Your task to perform on an android device: see tabs open on other devices in the chrome app Image 0: 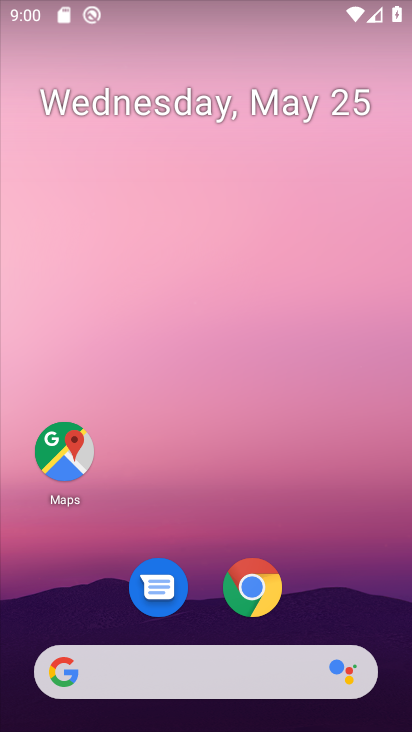
Step 0: click (251, 567)
Your task to perform on an android device: see tabs open on other devices in the chrome app Image 1: 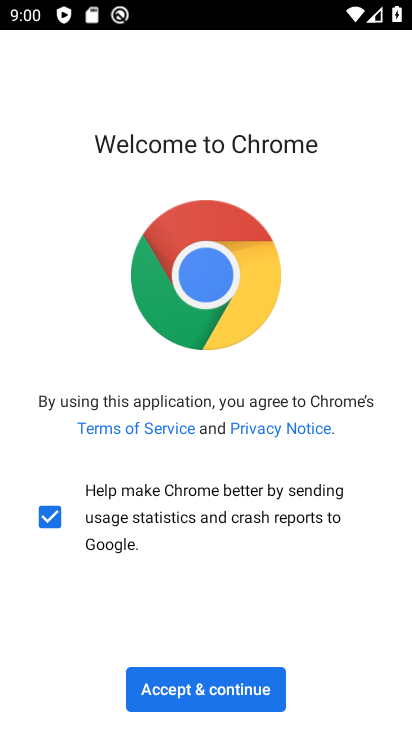
Step 1: click (216, 693)
Your task to perform on an android device: see tabs open on other devices in the chrome app Image 2: 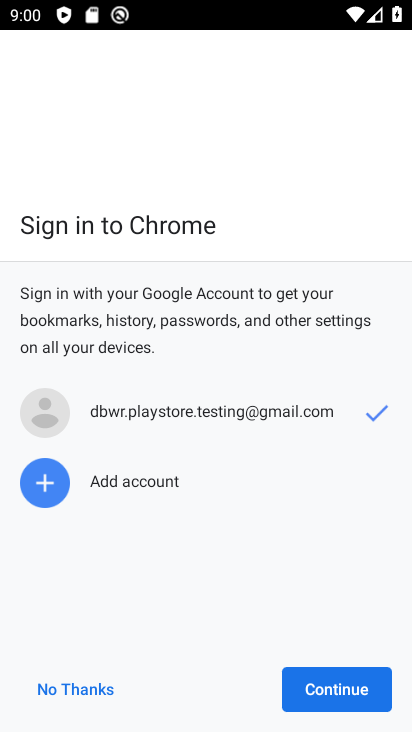
Step 2: click (334, 697)
Your task to perform on an android device: see tabs open on other devices in the chrome app Image 3: 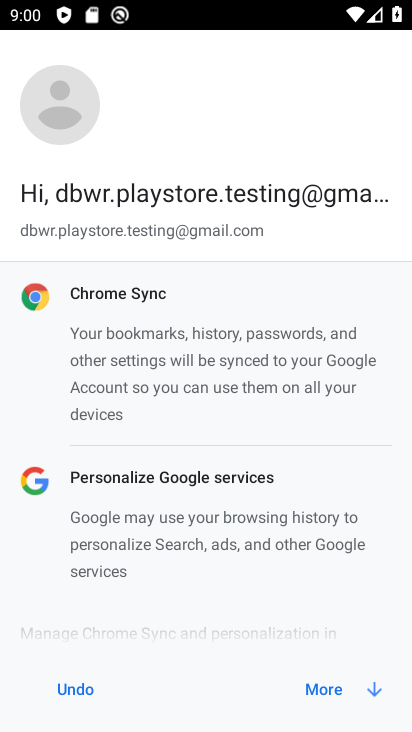
Step 3: click (306, 691)
Your task to perform on an android device: see tabs open on other devices in the chrome app Image 4: 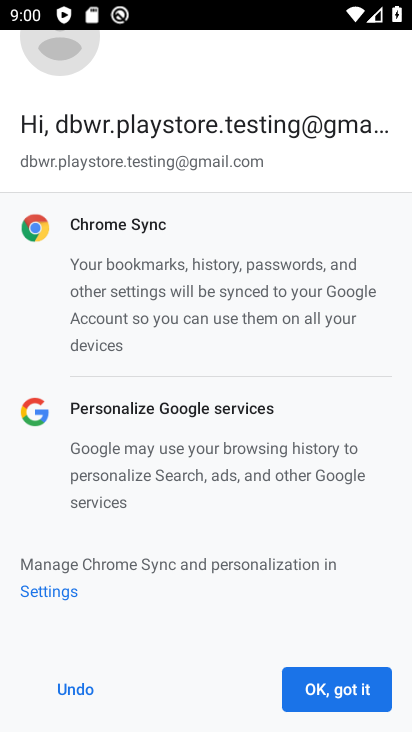
Step 4: click (306, 693)
Your task to perform on an android device: see tabs open on other devices in the chrome app Image 5: 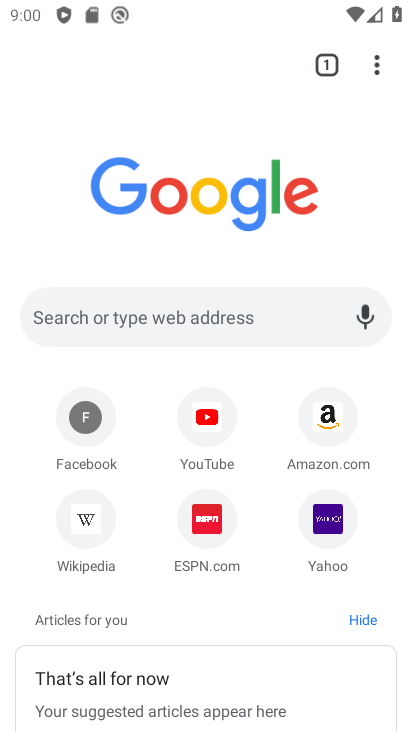
Step 5: click (372, 64)
Your task to perform on an android device: see tabs open on other devices in the chrome app Image 6: 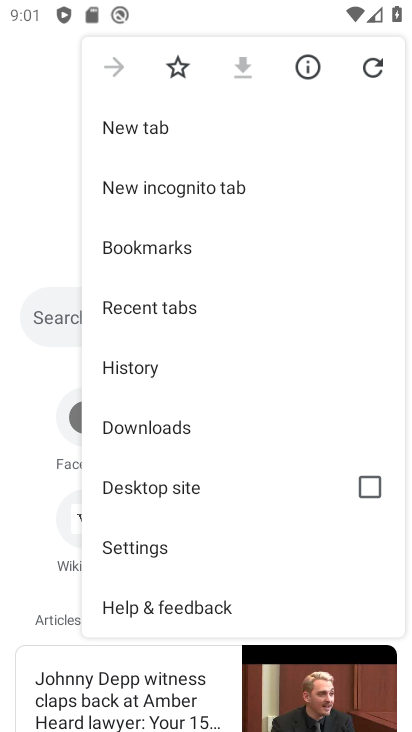
Step 6: click (148, 307)
Your task to perform on an android device: see tabs open on other devices in the chrome app Image 7: 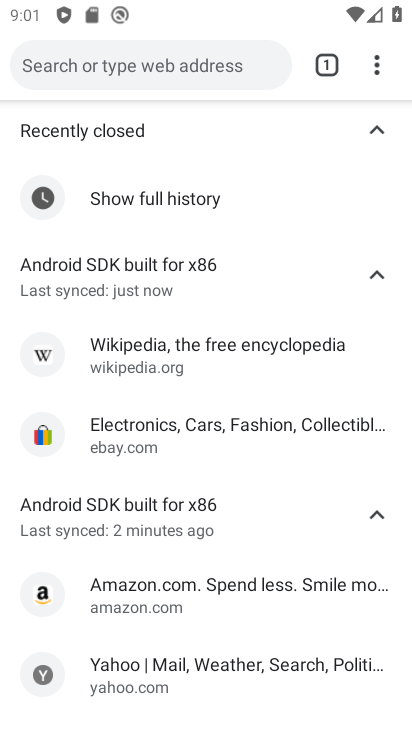
Step 7: task complete